Your task to perform on an android device: Go to sound settings Image 0: 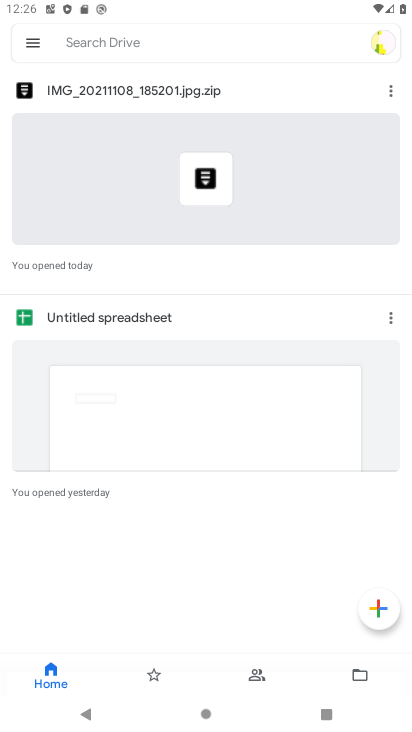
Step 0: press home button
Your task to perform on an android device: Go to sound settings Image 1: 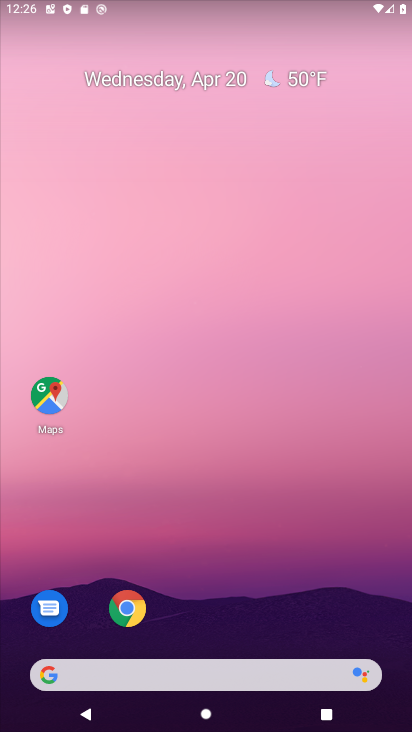
Step 1: drag from (170, 532) to (108, 15)
Your task to perform on an android device: Go to sound settings Image 2: 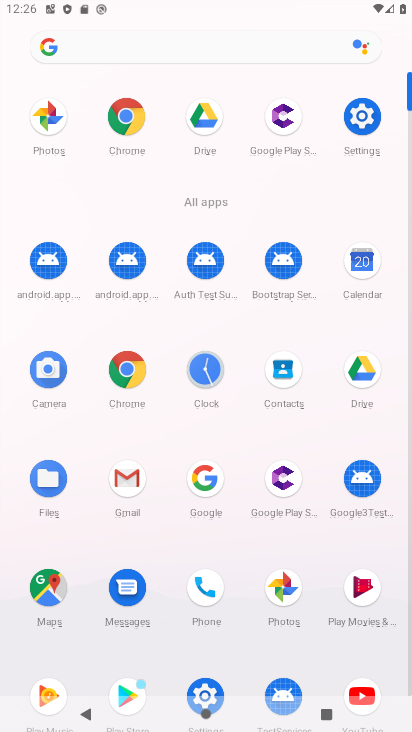
Step 2: click (363, 118)
Your task to perform on an android device: Go to sound settings Image 3: 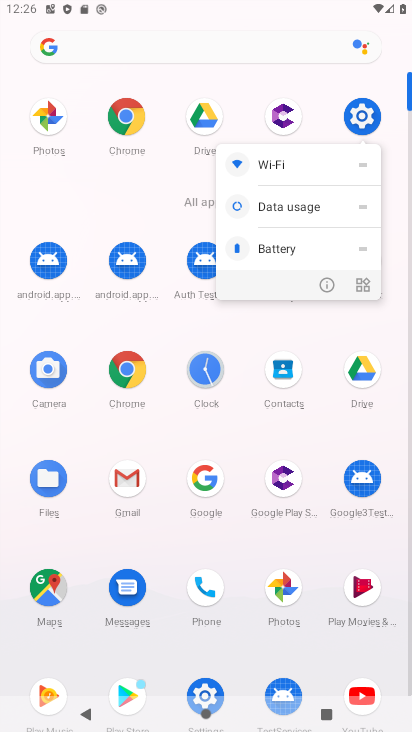
Step 3: click (350, 115)
Your task to perform on an android device: Go to sound settings Image 4: 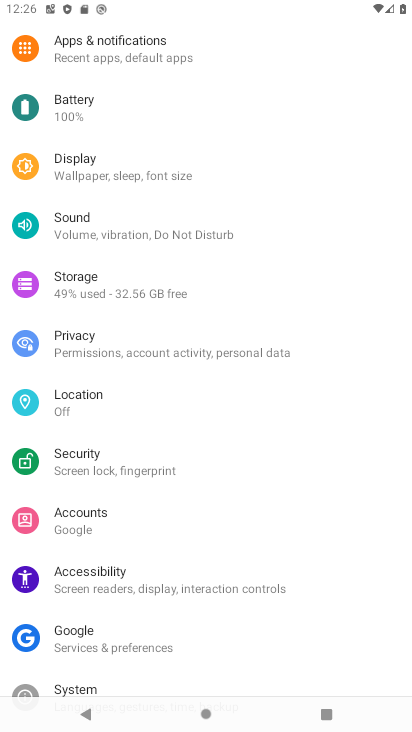
Step 4: click (151, 231)
Your task to perform on an android device: Go to sound settings Image 5: 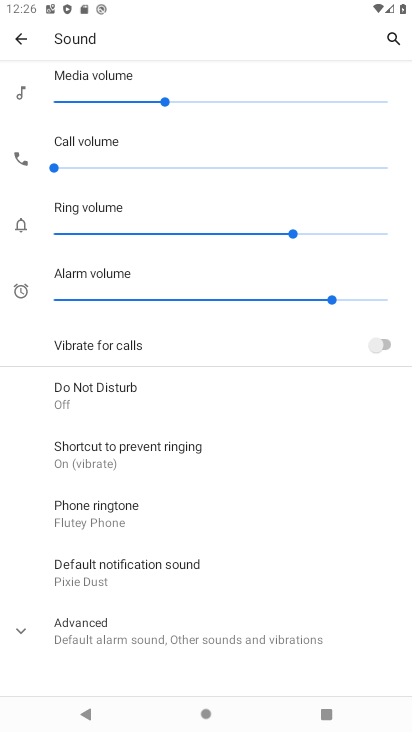
Step 5: click (153, 632)
Your task to perform on an android device: Go to sound settings Image 6: 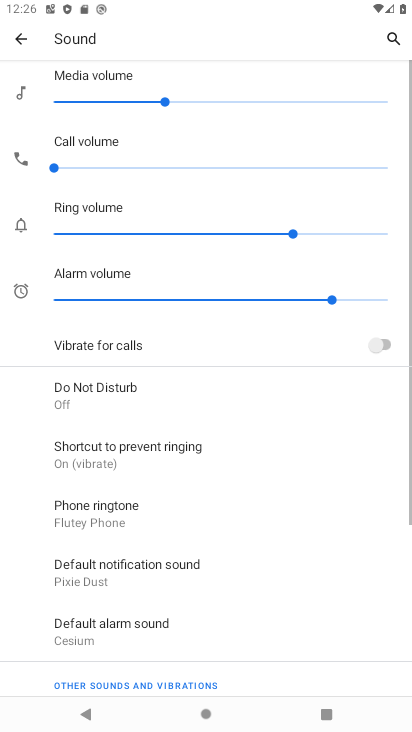
Step 6: task complete